Your task to perform on an android device: set the timer Image 0: 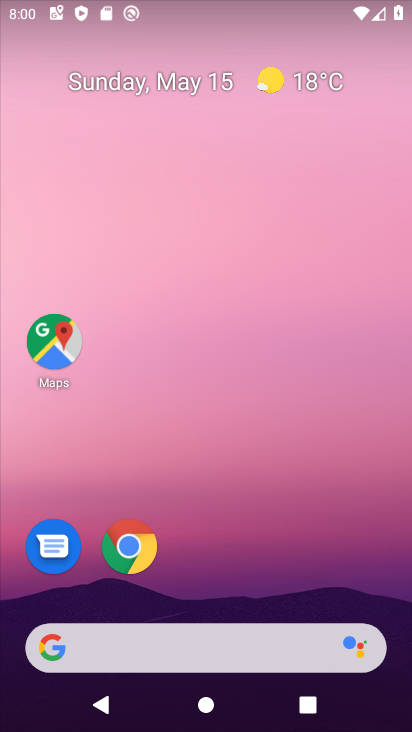
Step 0: drag from (176, 600) to (249, 150)
Your task to perform on an android device: set the timer Image 1: 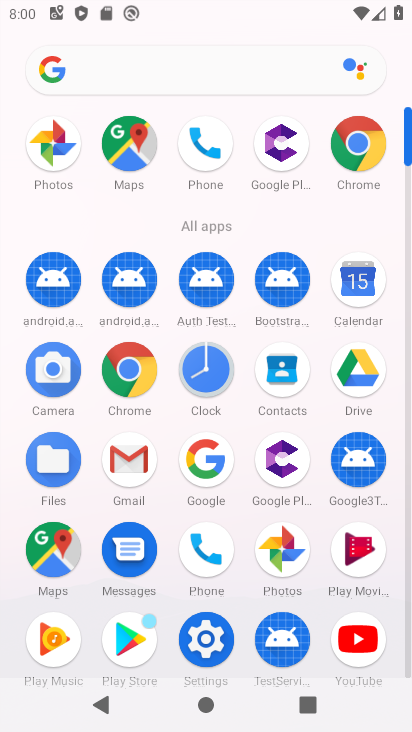
Step 1: click (202, 363)
Your task to perform on an android device: set the timer Image 2: 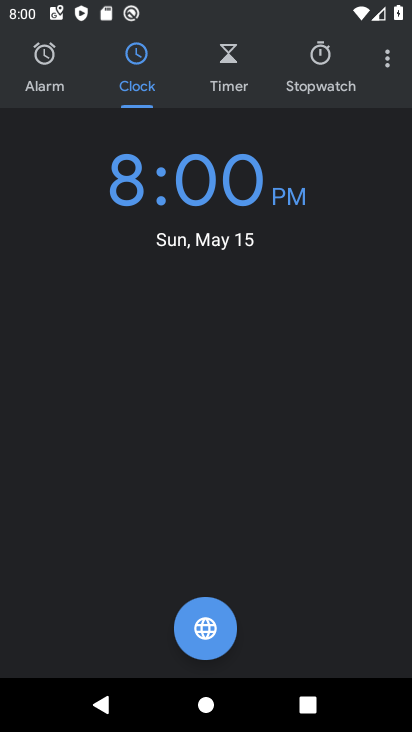
Step 2: click (230, 64)
Your task to perform on an android device: set the timer Image 3: 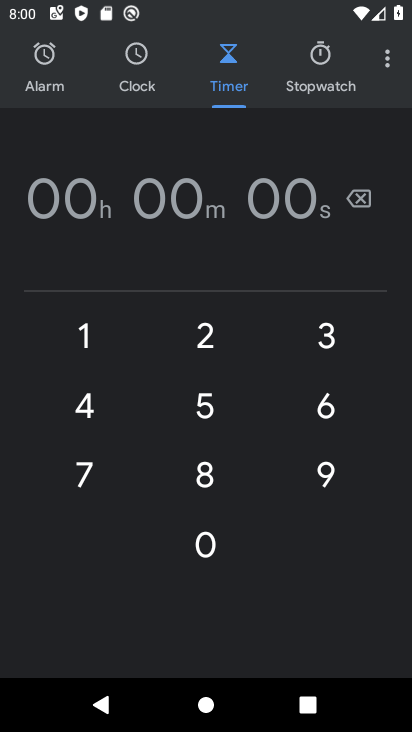
Step 3: click (99, 396)
Your task to perform on an android device: set the timer Image 4: 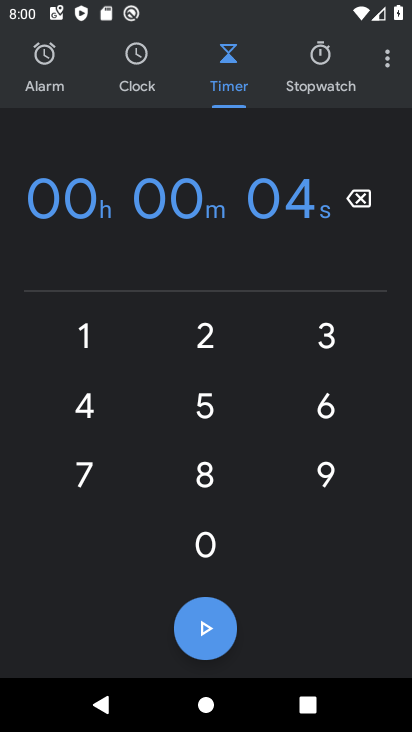
Step 4: click (185, 533)
Your task to perform on an android device: set the timer Image 5: 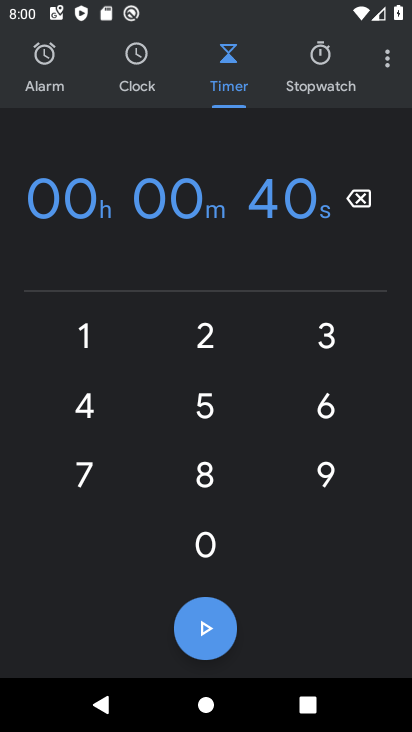
Step 5: click (199, 620)
Your task to perform on an android device: set the timer Image 6: 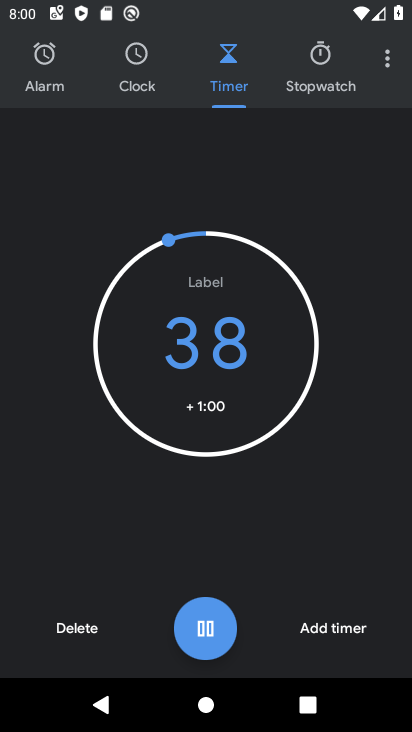
Step 6: task complete